Your task to perform on an android device: Open privacy settings Image 0: 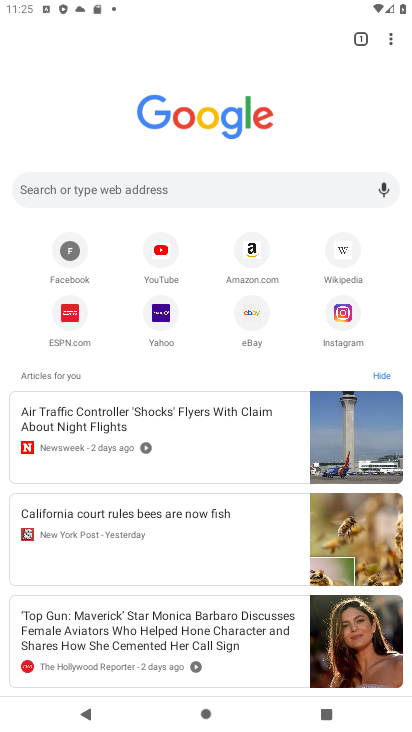
Step 0: click (396, 48)
Your task to perform on an android device: Open privacy settings Image 1: 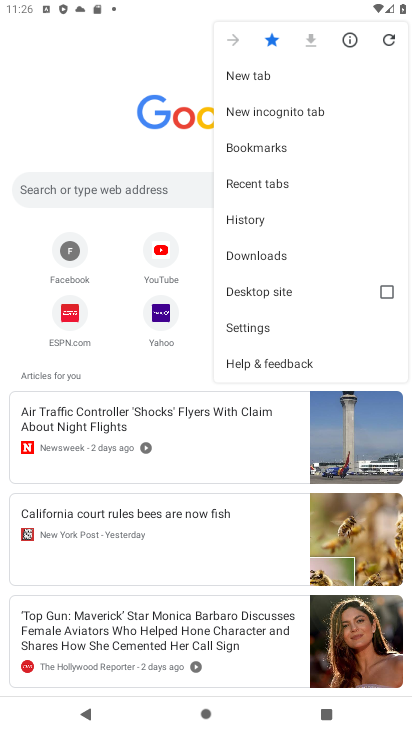
Step 1: click (272, 321)
Your task to perform on an android device: Open privacy settings Image 2: 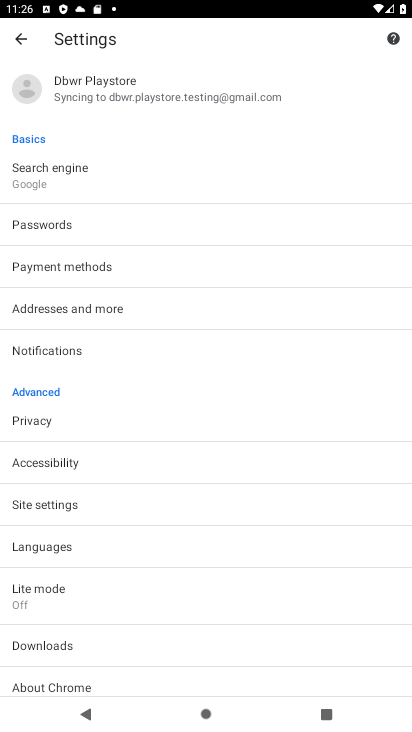
Step 2: click (81, 414)
Your task to perform on an android device: Open privacy settings Image 3: 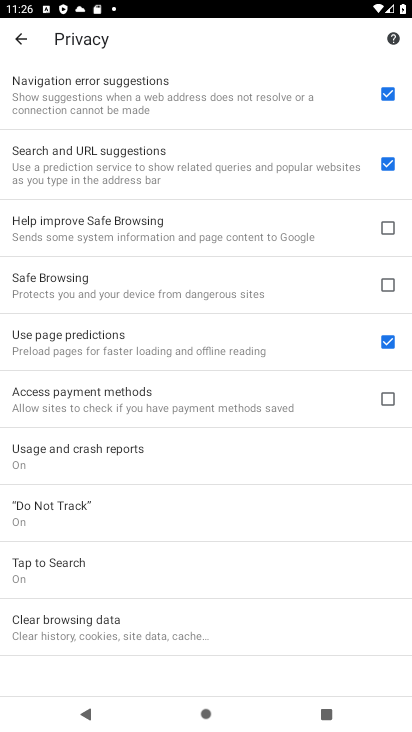
Step 3: task complete